Your task to perform on an android device: Open settings Image 0: 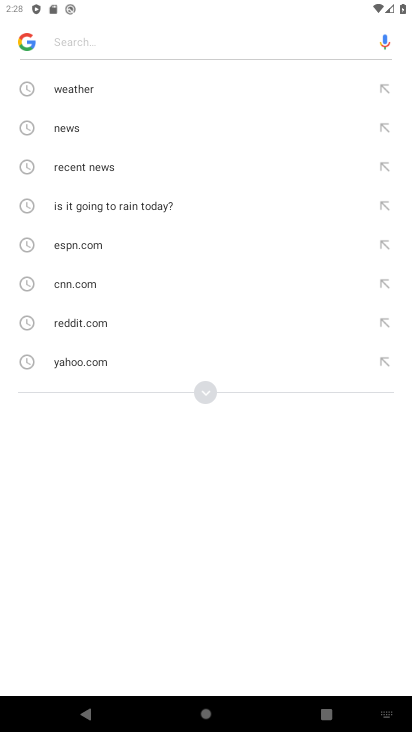
Step 0: press home button
Your task to perform on an android device: Open settings Image 1: 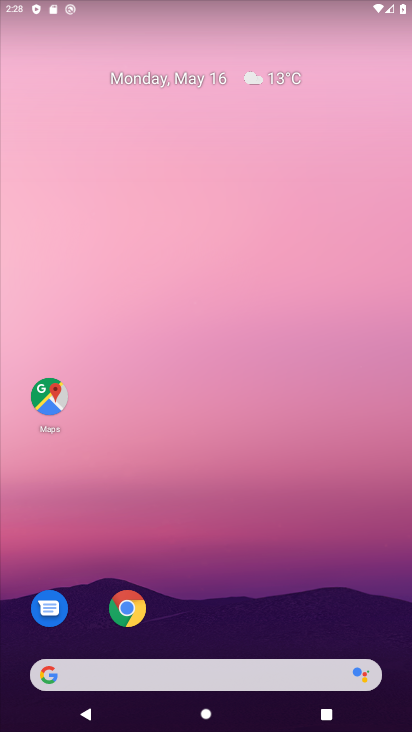
Step 1: drag from (199, 563) to (206, 105)
Your task to perform on an android device: Open settings Image 2: 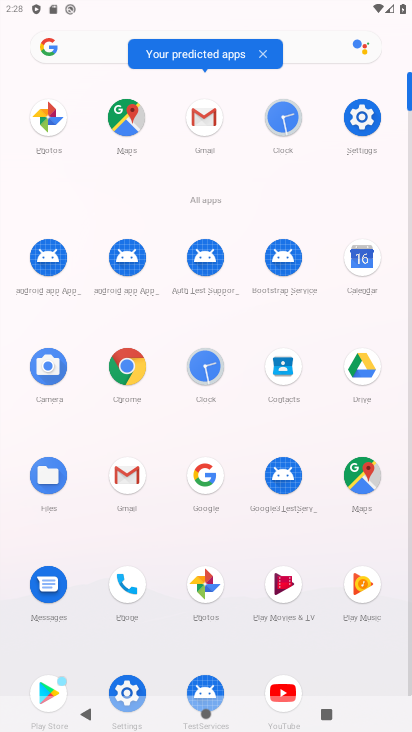
Step 2: click (362, 114)
Your task to perform on an android device: Open settings Image 3: 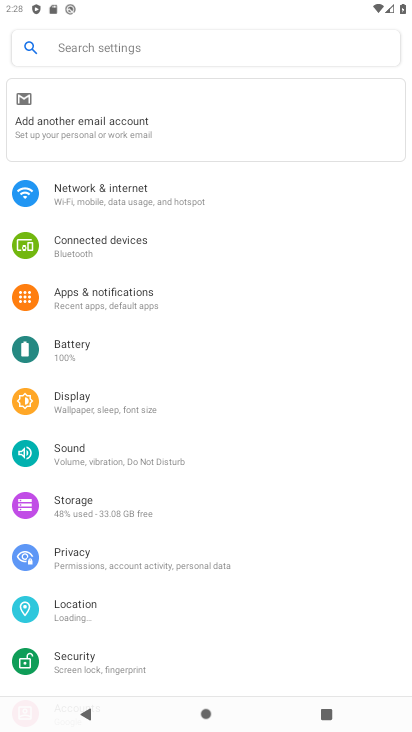
Step 3: task complete